Your task to perform on an android device: open sync settings in chrome Image 0: 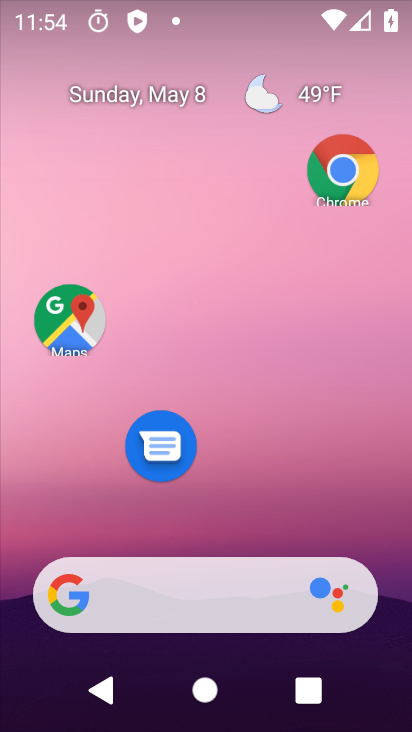
Step 0: click (332, 174)
Your task to perform on an android device: open sync settings in chrome Image 1: 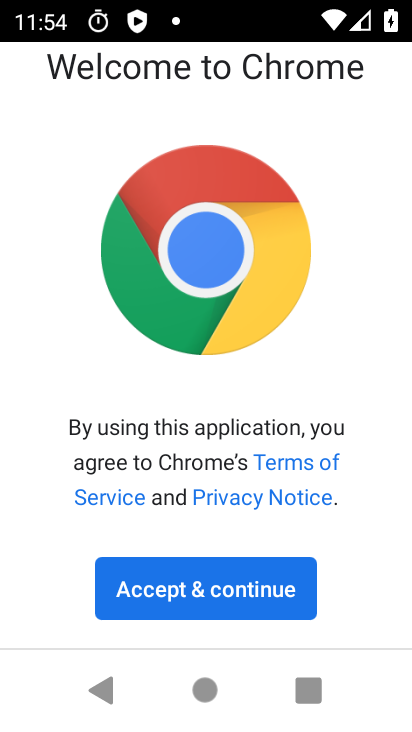
Step 1: click (208, 598)
Your task to perform on an android device: open sync settings in chrome Image 2: 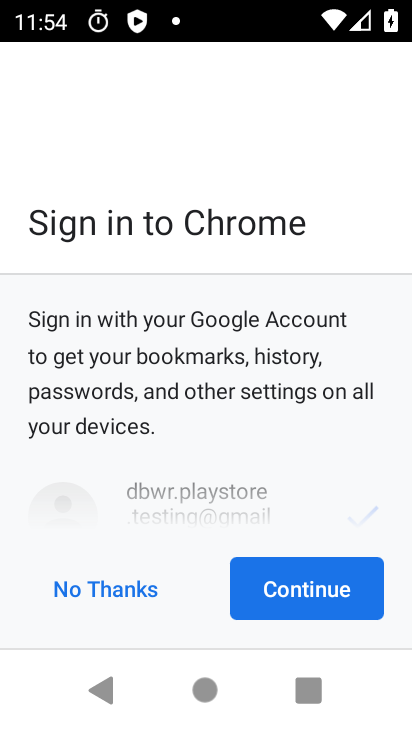
Step 2: click (110, 587)
Your task to perform on an android device: open sync settings in chrome Image 3: 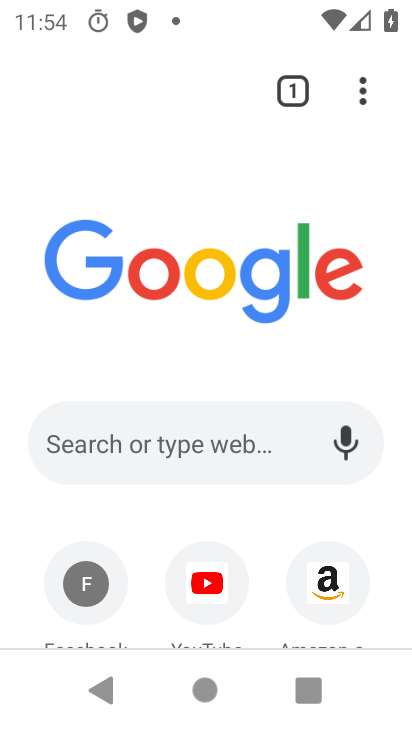
Step 3: click (363, 81)
Your task to perform on an android device: open sync settings in chrome Image 4: 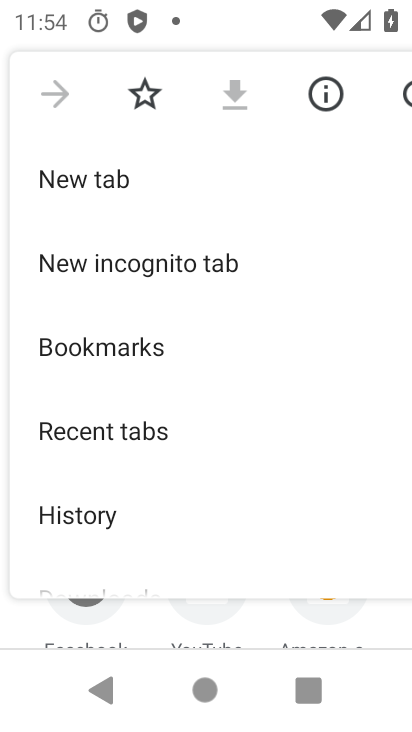
Step 4: drag from (215, 424) to (199, 193)
Your task to perform on an android device: open sync settings in chrome Image 5: 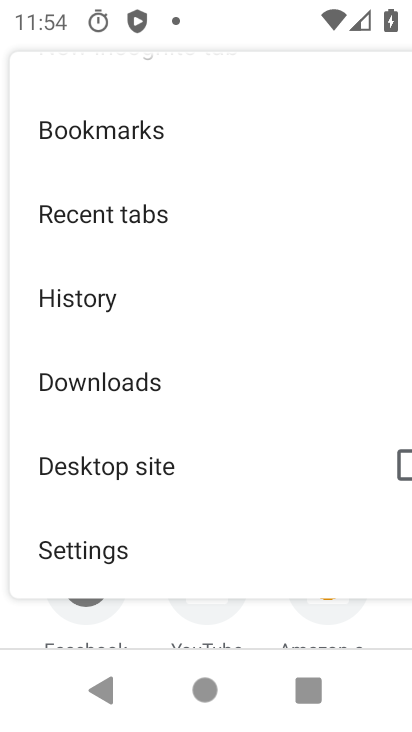
Step 5: click (167, 548)
Your task to perform on an android device: open sync settings in chrome Image 6: 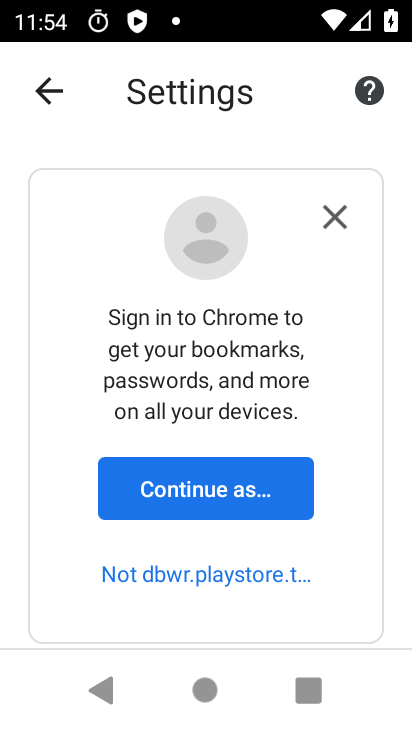
Step 6: click (344, 216)
Your task to perform on an android device: open sync settings in chrome Image 7: 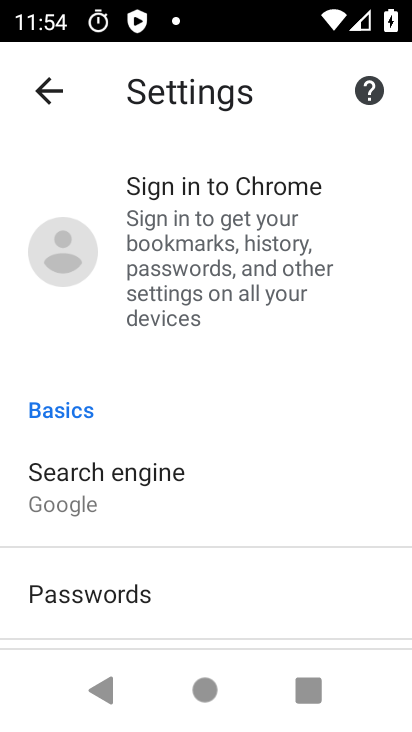
Step 7: drag from (289, 501) to (286, 201)
Your task to perform on an android device: open sync settings in chrome Image 8: 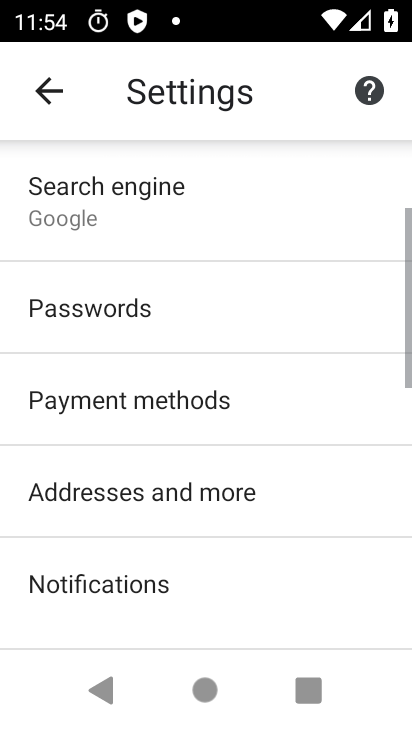
Step 8: drag from (244, 520) to (296, 170)
Your task to perform on an android device: open sync settings in chrome Image 9: 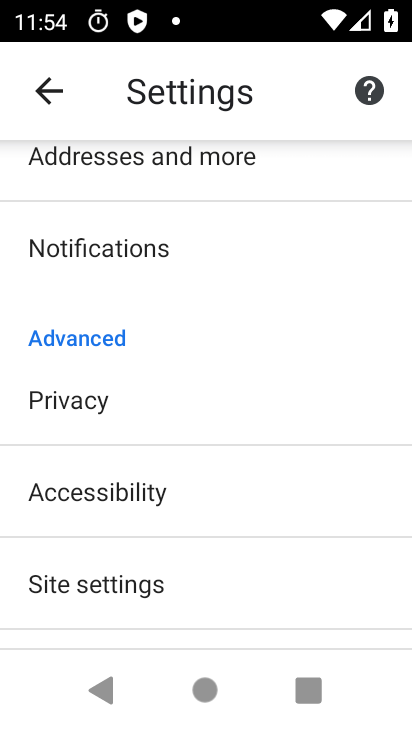
Step 9: drag from (204, 507) to (284, 239)
Your task to perform on an android device: open sync settings in chrome Image 10: 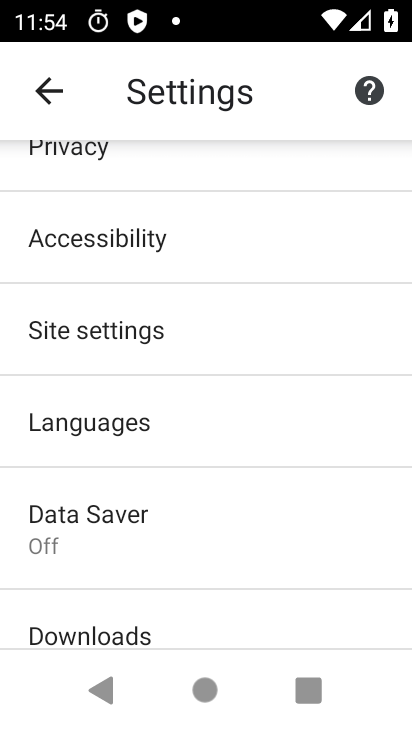
Step 10: click (266, 243)
Your task to perform on an android device: open sync settings in chrome Image 11: 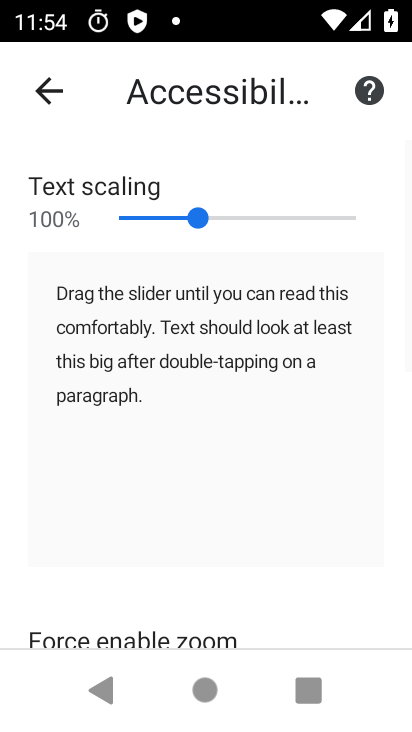
Step 11: drag from (184, 493) to (248, 65)
Your task to perform on an android device: open sync settings in chrome Image 12: 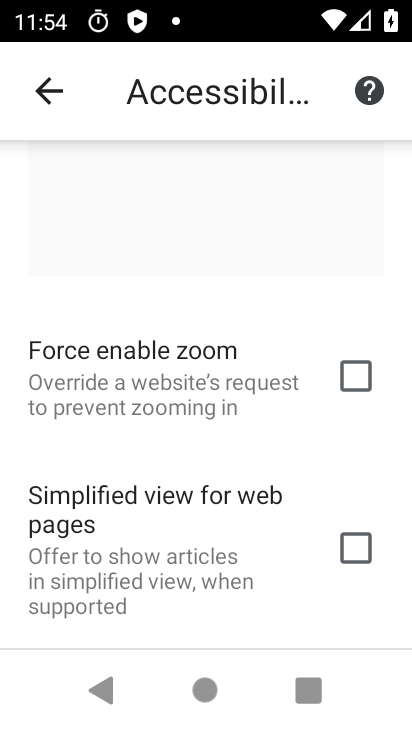
Step 12: click (50, 95)
Your task to perform on an android device: open sync settings in chrome Image 13: 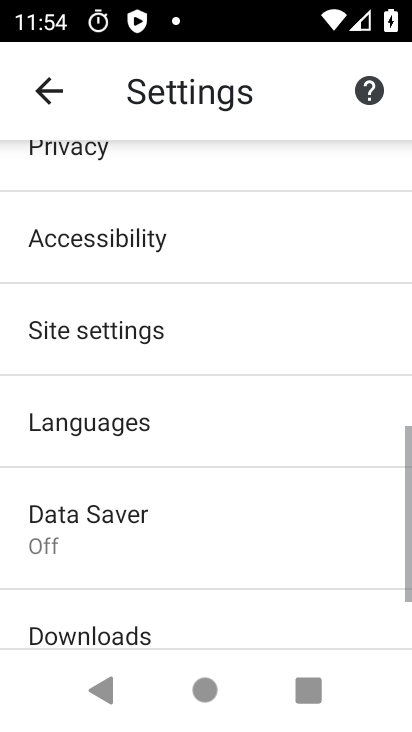
Step 13: click (131, 349)
Your task to perform on an android device: open sync settings in chrome Image 14: 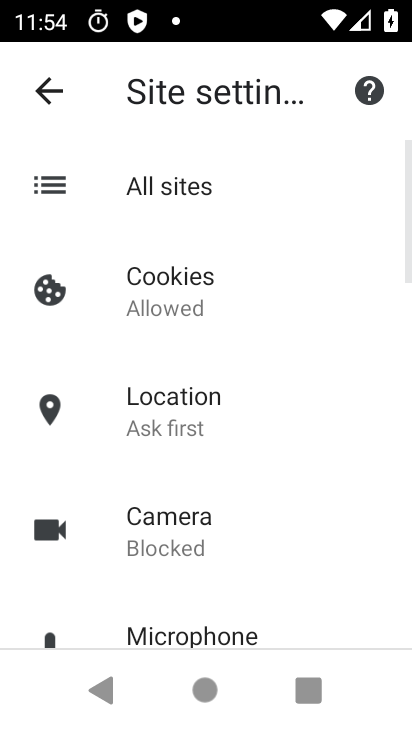
Step 14: drag from (125, 532) to (223, 93)
Your task to perform on an android device: open sync settings in chrome Image 15: 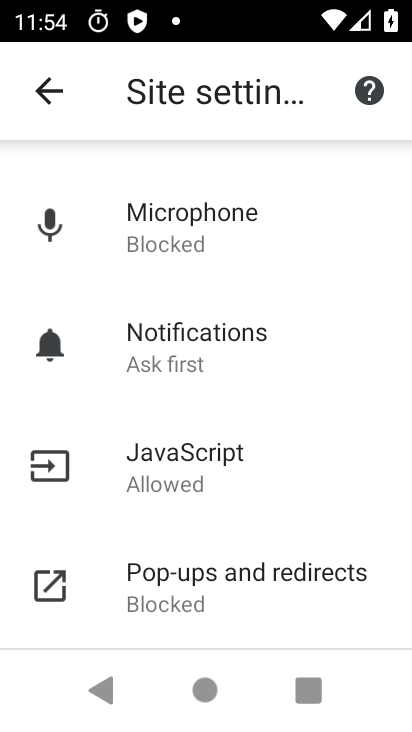
Step 15: drag from (154, 504) to (254, 170)
Your task to perform on an android device: open sync settings in chrome Image 16: 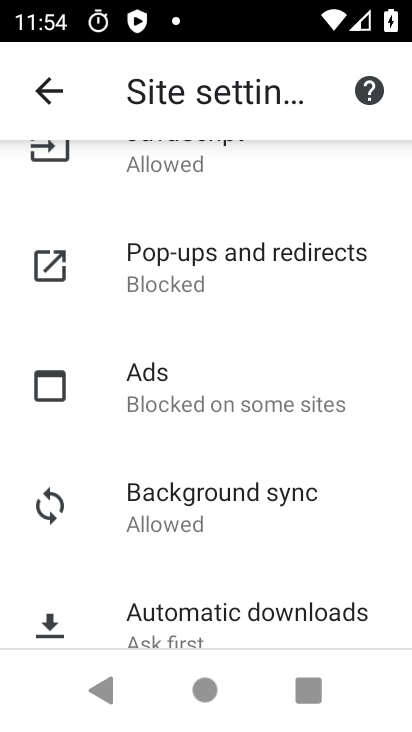
Step 16: drag from (155, 567) to (257, 151)
Your task to perform on an android device: open sync settings in chrome Image 17: 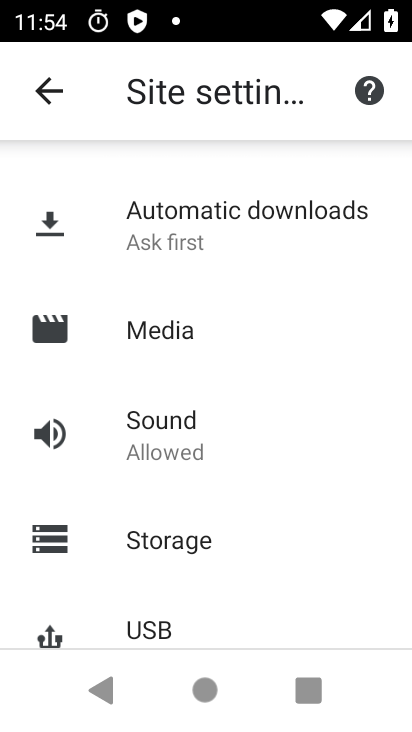
Step 17: drag from (141, 565) to (319, 108)
Your task to perform on an android device: open sync settings in chrome Image 18: 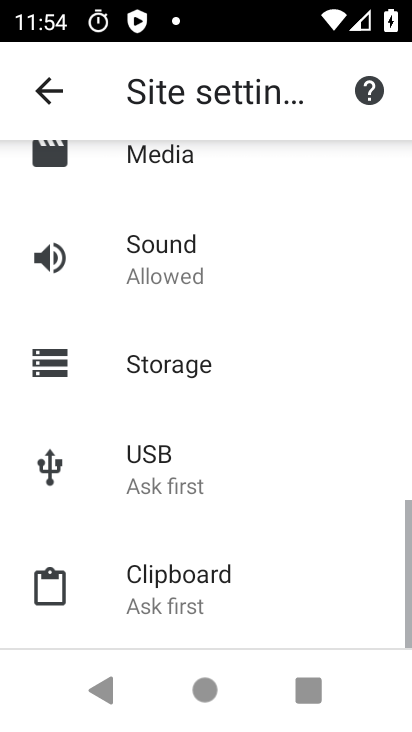
Step 18: drag from (109, 555) to (218, 214)
Your task to perform on an android device: open sync settings in chrome Image 19: 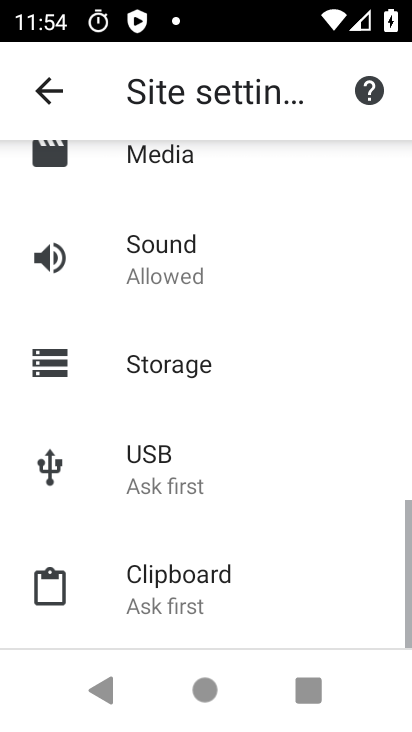
Step 19: drag from (218, 201) to (202, 531)
Your task to perform on an android device: open sync settings in chrome Image 20: 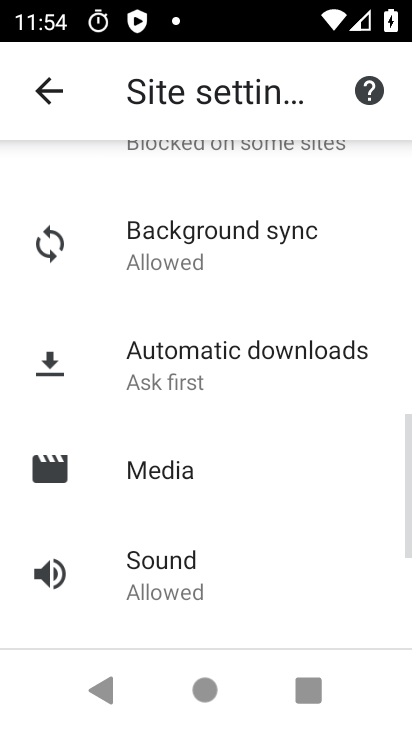
Step 20: drag from (224, 214) to (210, 548)
Your task to perform on an android device: open sync settings in chrome Image 21: 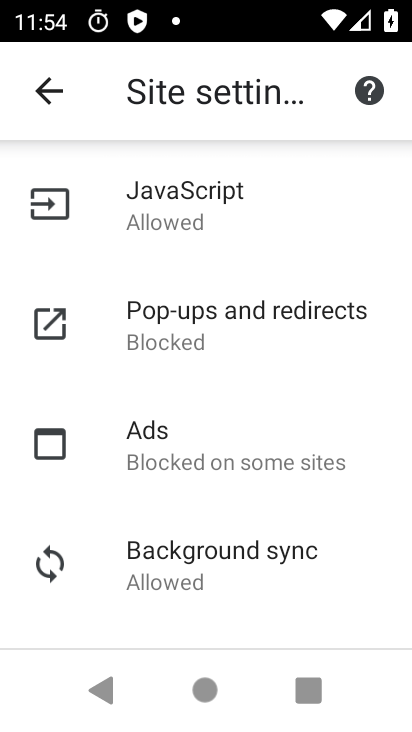
Step 21: drag from (272, 224) to (237, 561)
Your task to perform on an android device: open sync settings in chrome Image 22: 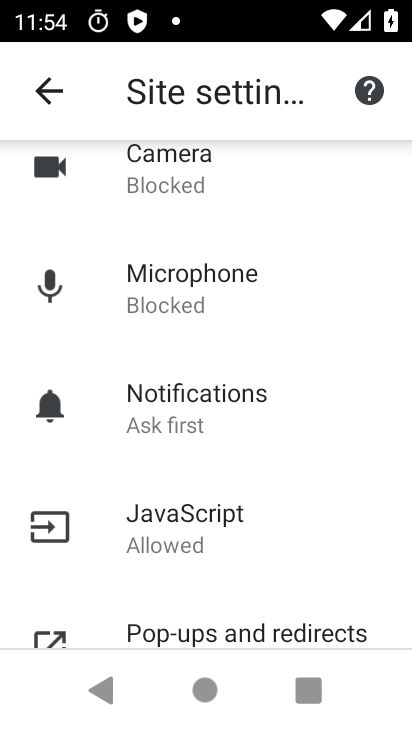
Step 22: drag from (284, 219) to (266, 539)
Your task to perform on an android device: open sync settings in chrome Image 23: 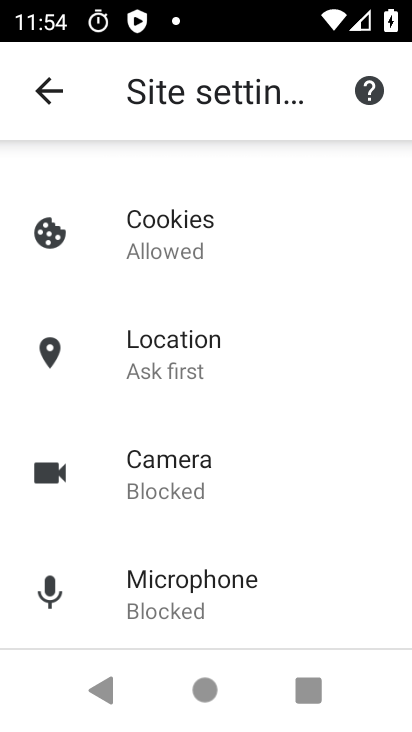
Step 23: drag from (240, 296) to (207, 585)
Your task to perform on an android device: open sync settings in chrome Image 24: 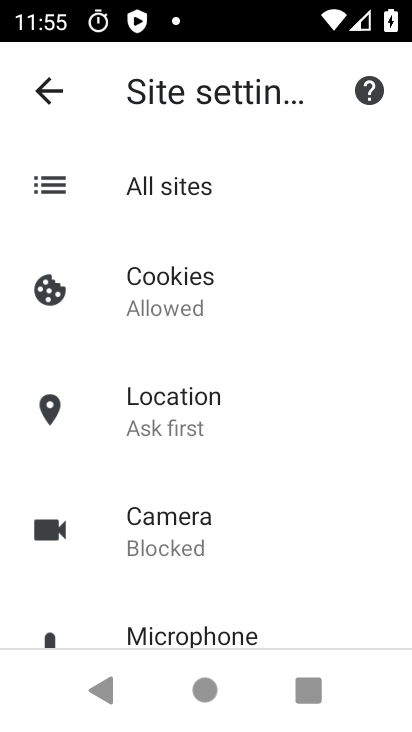
Step 24: click (225, 171)
Your task to perform on an android device: open sync settings in chrome Image 25: 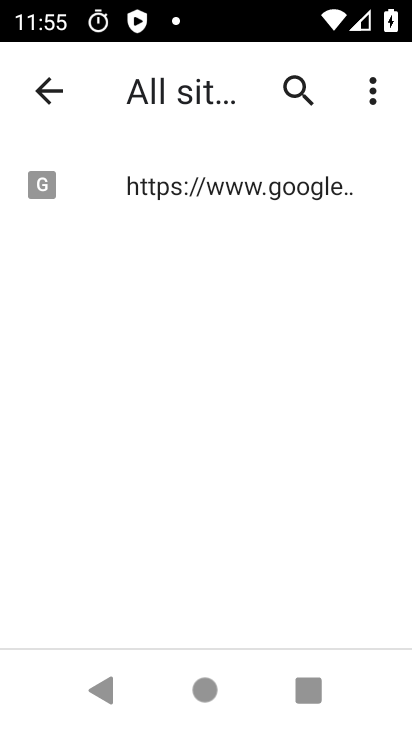
Step 25: click (50, 84)
Your task to perform on an android device: open sync settings in chrome Image 26: 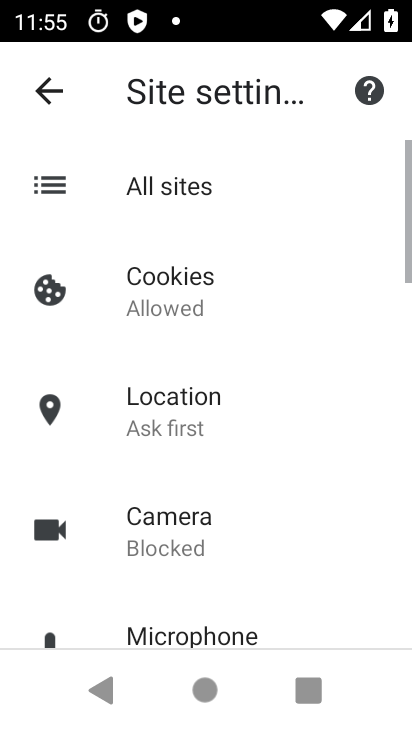
Step 26: click (50, 84)
Your task to perform on an android device: open sync settings in chrome Image 27: 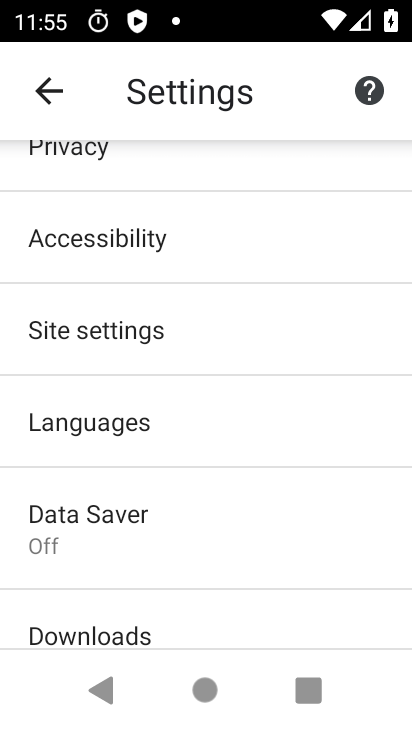
Step 27: drag from (51, 595) to (73, 510)
Your task to perform on an android device: open sync settings in chrome Image 28: 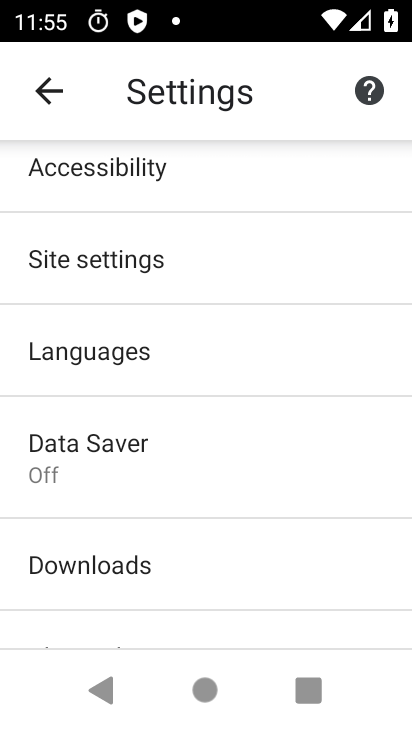
Step 28: drag from (89, 539) to (115, 362)
Your task to perform on an android device: open sync settings in chrome Image 29: 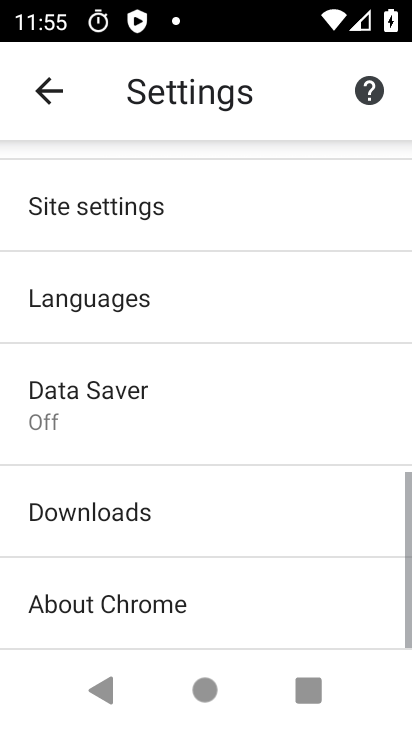
Step 29: drag from (88, 707) to (130, 455)
Your task to perform on an android device: open sync settings in chrome Image 30: 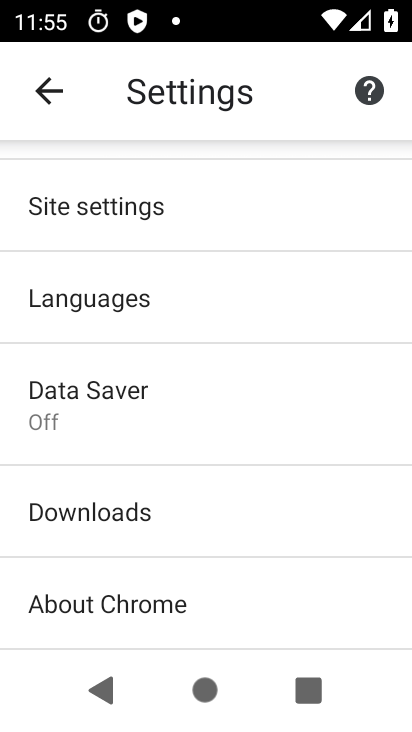
Step 30: drag from (149, 587) to (219, 270)
Your task to perform on an android device: open sync settings in chrome Image 31: 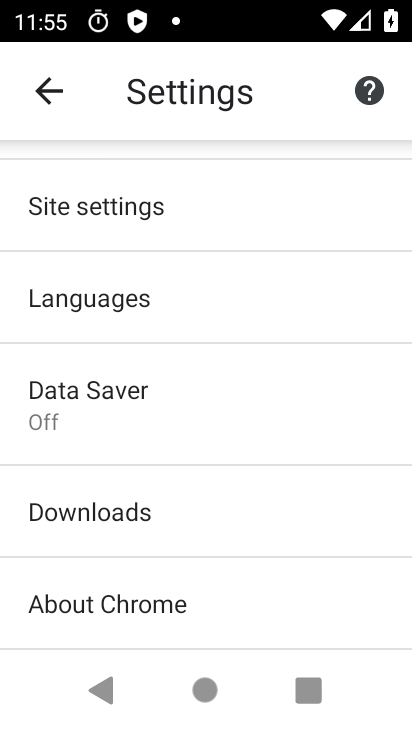
Step 31: drag from (185, 457) to (216, 269)
Your task to perform on an android device: open sync settings in chrome Image 32: 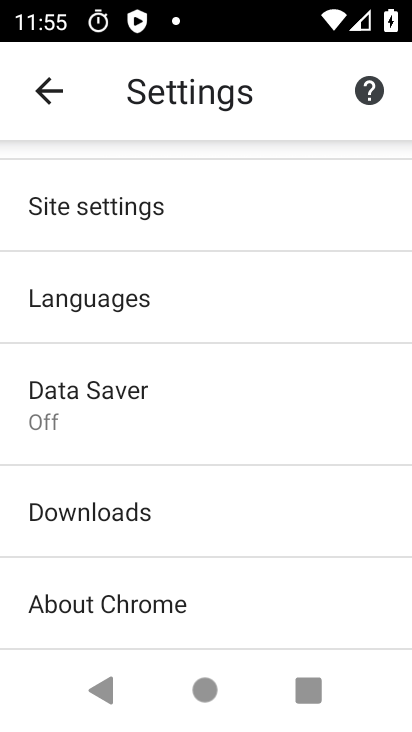
Step 32: click (186, 594)
Your task to perform on an android device: open sync settings in chrome Image 33: 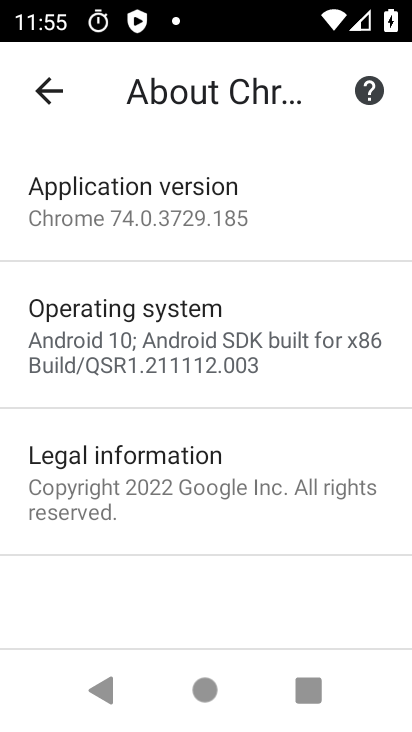
Step 33: click (48, 86)
Your task to perform on an android device: open sync settings in chrome Image 34: 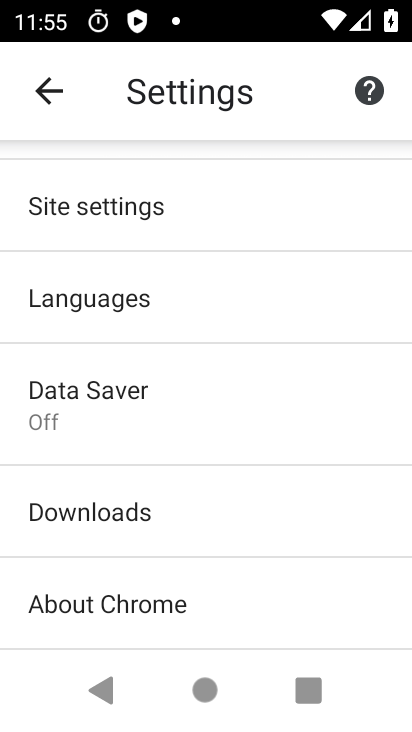
Step 34: drag from (181, 213) to (187, 603)
Your task to perform on an android device: open sync settings in chrome Image 35: 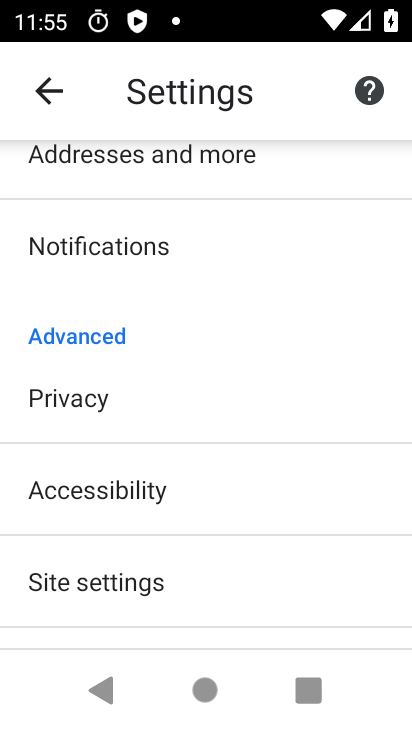
Step 35: drag from (183, 292) to (170, 675)
Your task to perform on an android device: open sync settings in chrome Image 36: 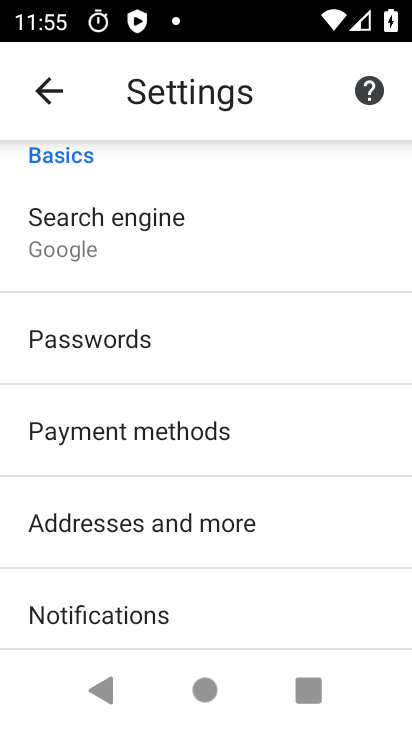
Step 36: drag from (261, 274) to (261, 650)
Your task to perform on an android device: open sync settings in chrome Image 37: 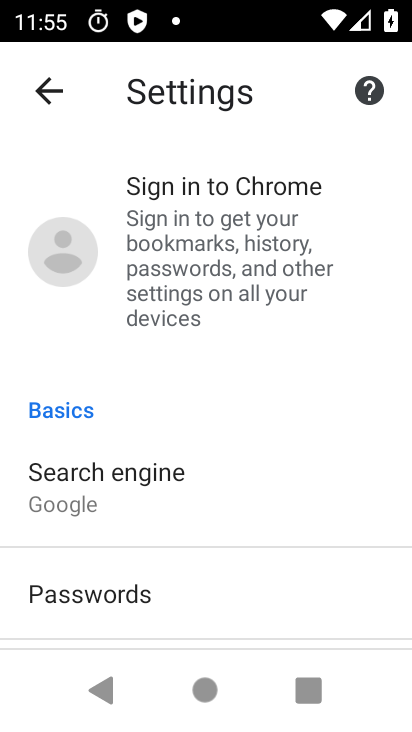
Step 37: click (202, 203)
Your task to perform on an android device: open sync settings in chrome Image 38: 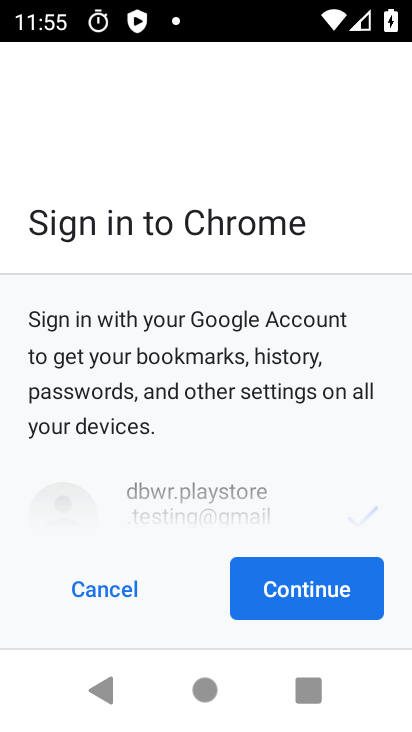
Step 38: drag from (276, 428) to (314, 196)
Your task to perform on an android device: open sync settings in chrome Image 39: 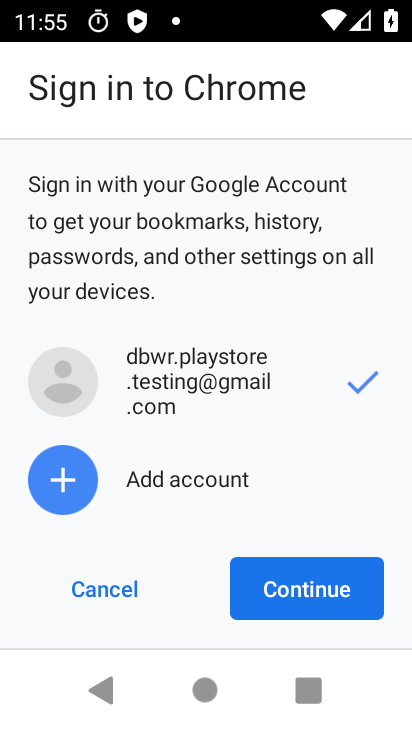
Step 39: drag from (265, 435) to (328, 135)
Your task to perform on an android device: open sync settings in chrome Image 40: 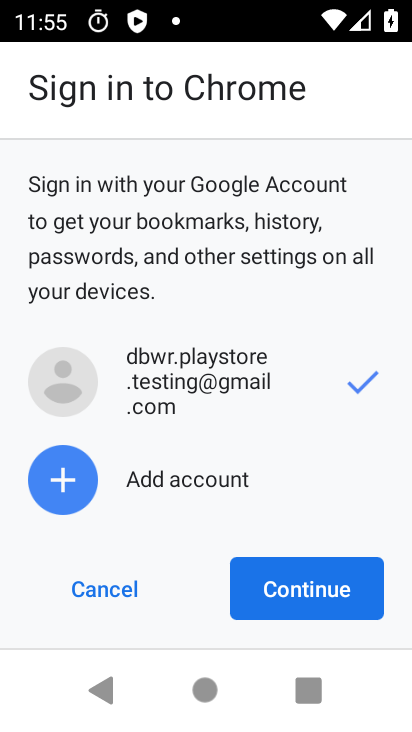
Step 40: drag from (269, 411) to (138, 730)
Your task to perform on an android device: open sync settings in chrome Image 41: 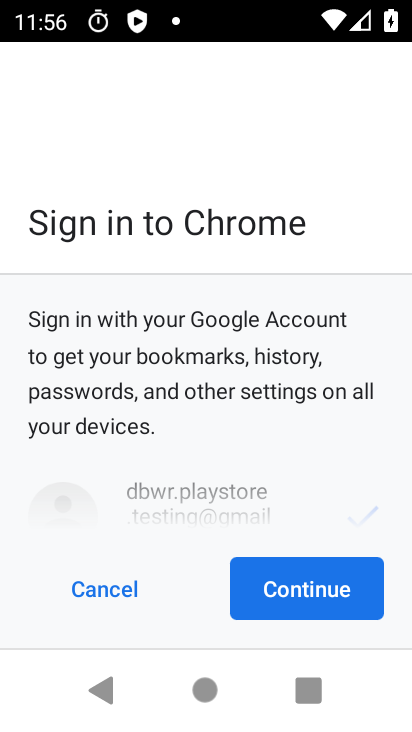
Step 41: click (118, 583)
Your task to perform on an android device: open sync settings in chrome Image 42: 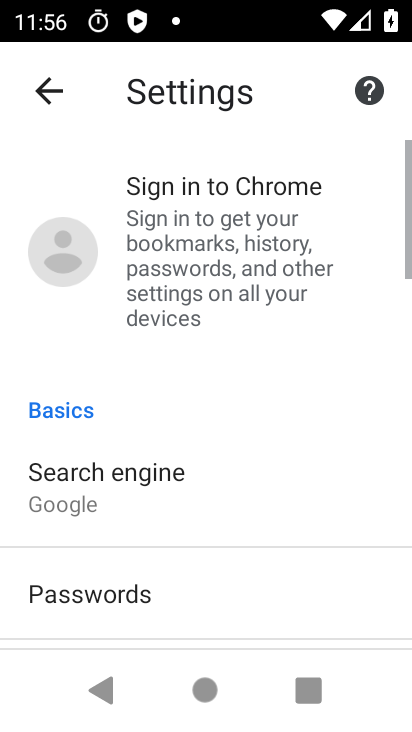
Step 42: click (112, 689)
Your task to perform on an android device: open sync settings in chrome Image 43: 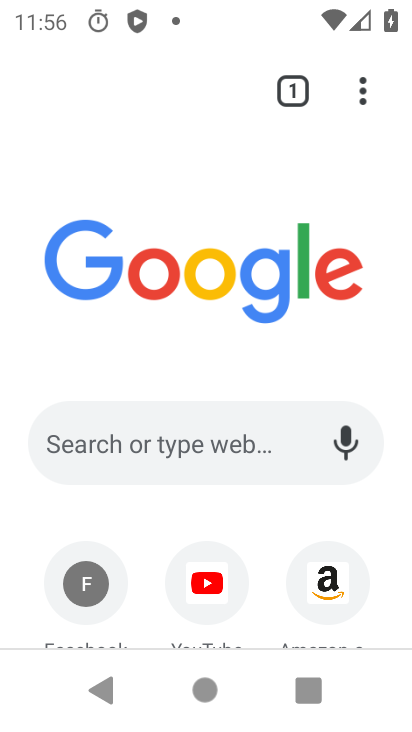
Step 43: click (361, 87)
Your task to perform on an android device: open sync settings in chrome Image 44: 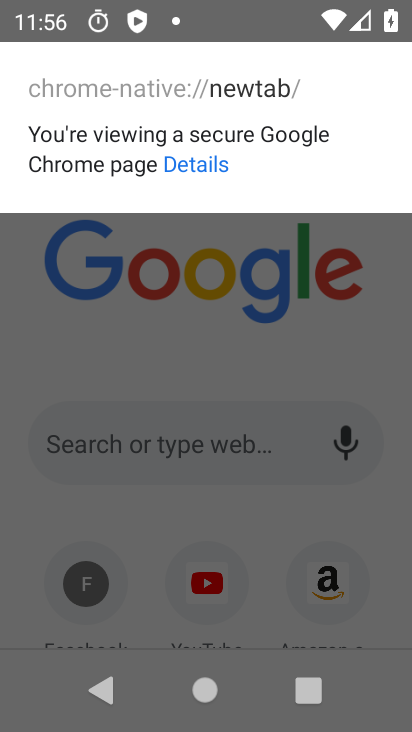
Step 44: click (167, 349)
Your task to perform on an android device: open sync settings in chrome Image 45: 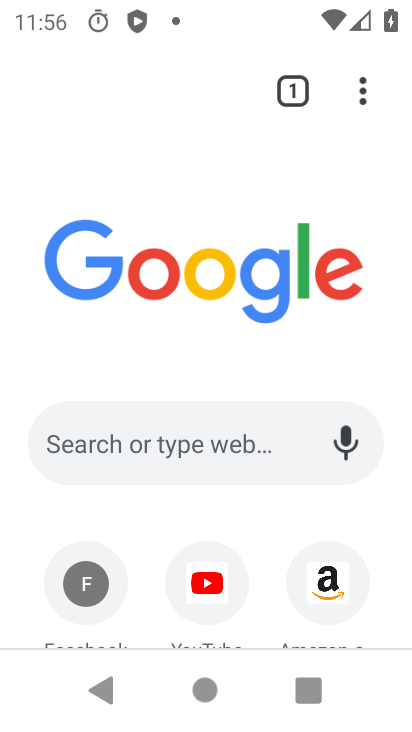
Step 45: task complete